Your task to perform on an android device: What's the weather going to be this weekend? Image 0: 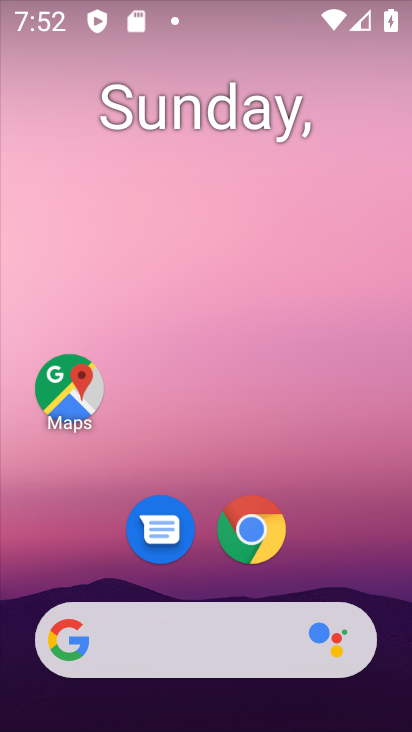
Step 0: drag from (1, 262) to (411, 287)
Your task to perform on an android device: What's the weather going to be this weekend? Image 1: 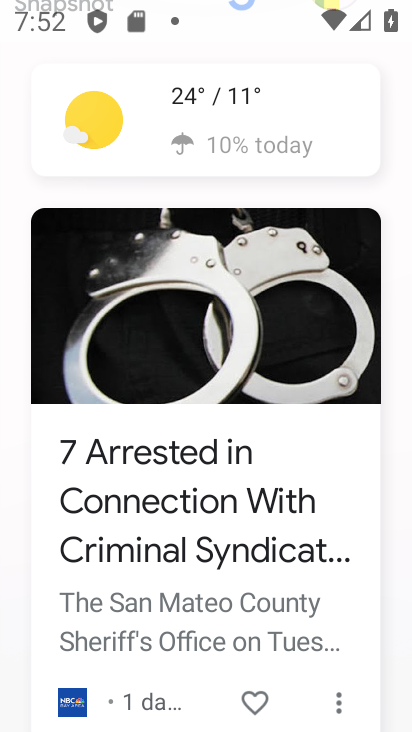
Step 1: click (220, 120)
Your task to perform on an android device: What's the weather going to be this weekend? Image 2: 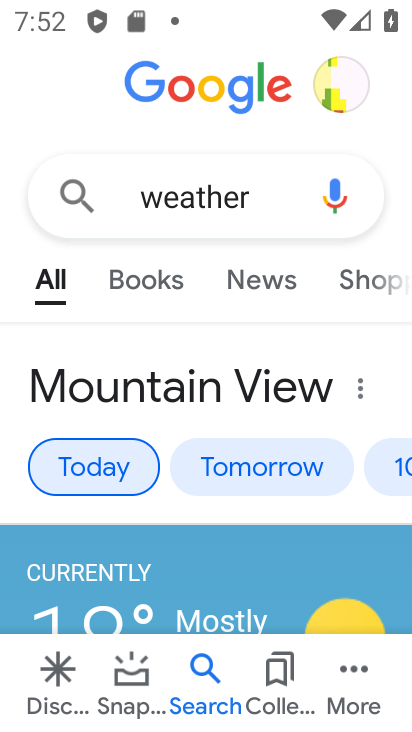
Step 2: click (379, 466)
Your task to perform on an android device: What's the weather going to be this weekend? Image 3: 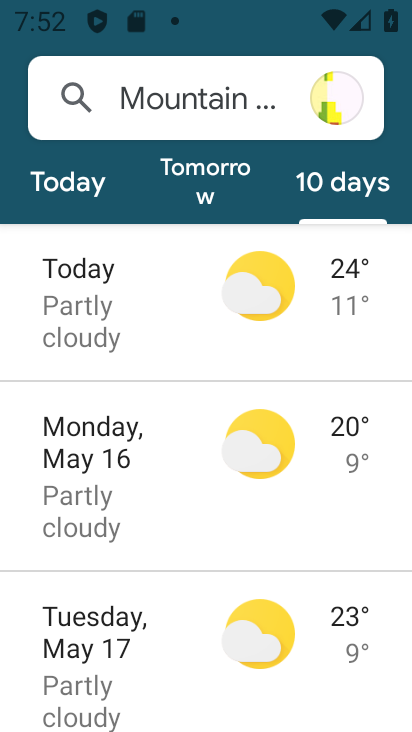
Step 3: task complete